Your task to perform on an android device: Open settings on Google Maps Image 0: 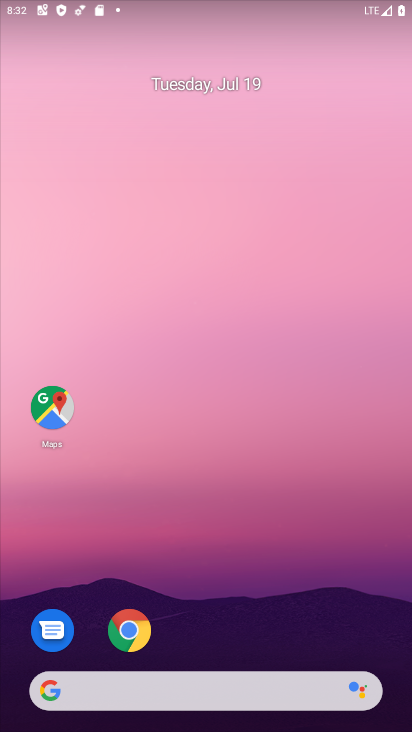
Step 0: drag from (217, 638) to (257, 103)
Your task to perform on an android device: Open settings on Google Maps Image 1: 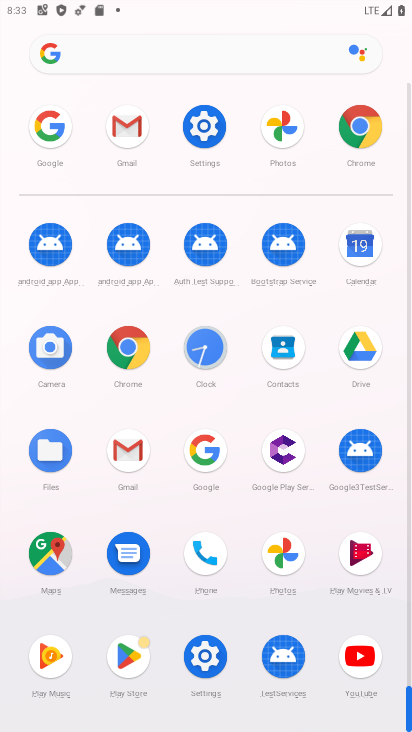
Step 1: click (42, 561)
Your task to perform on an android device: Open settings on Google Maps Image 2: 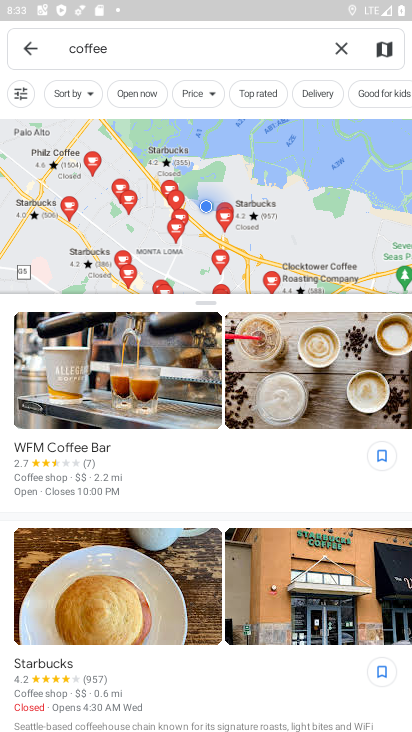
Step 2: click (24, 55)
Your task to perform on an android device: Open settings on Google Maps Image 3: 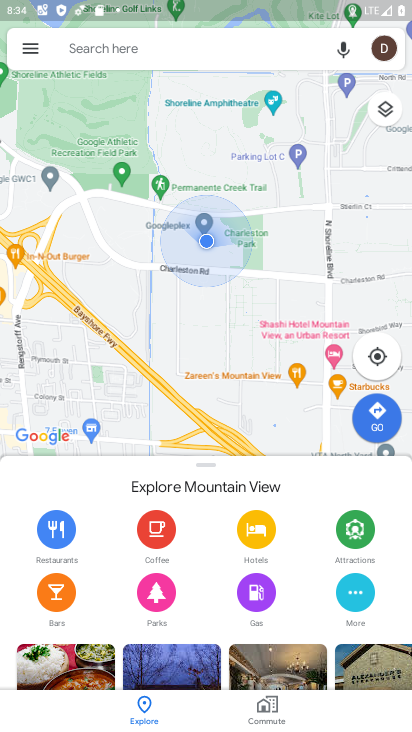
Step 3: click (34, 59)
Your task to perform on an android device: Open settings on Google Maps Image 4: 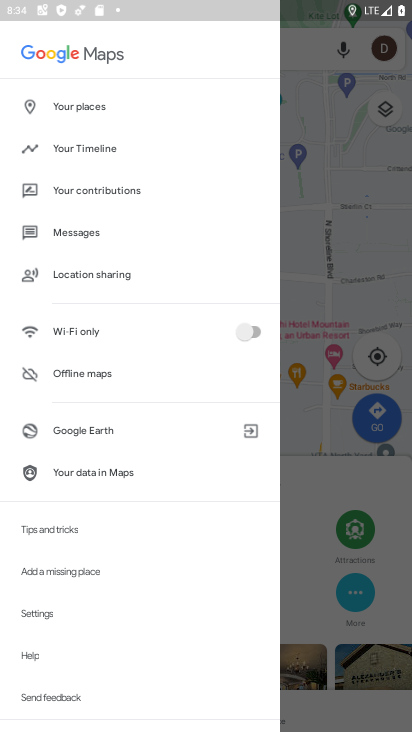
Step 4: click (47, 617)
Your task to perform on an android device: Open settings on Google Maps Image 5: 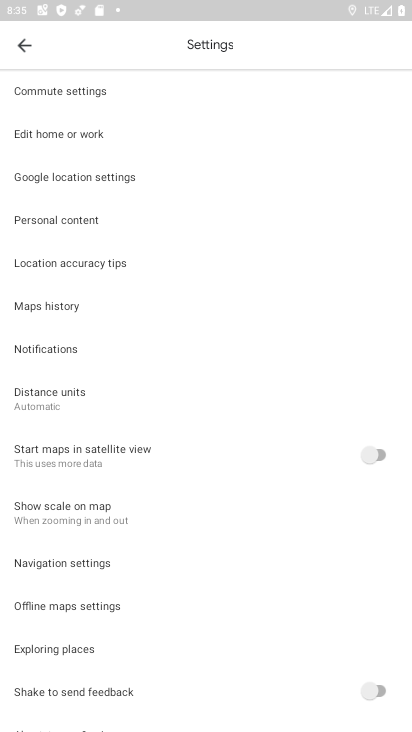
Step 5: task complete